Your task to perform on an android device: open app "PlayWell" Image 0: 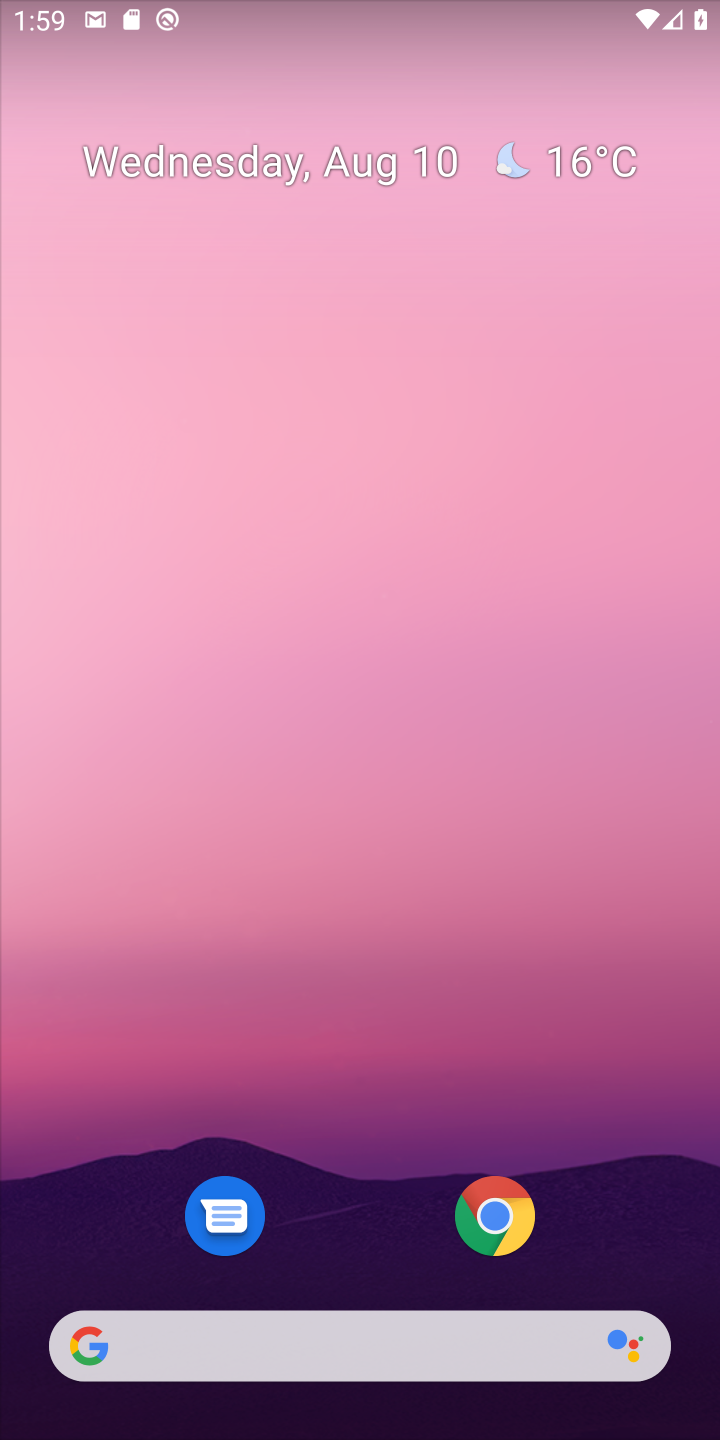
Step 0: drag from (353, 1320) to (302, 190)
Your task to perform on an android device: open app "PlayWell" Image 1: 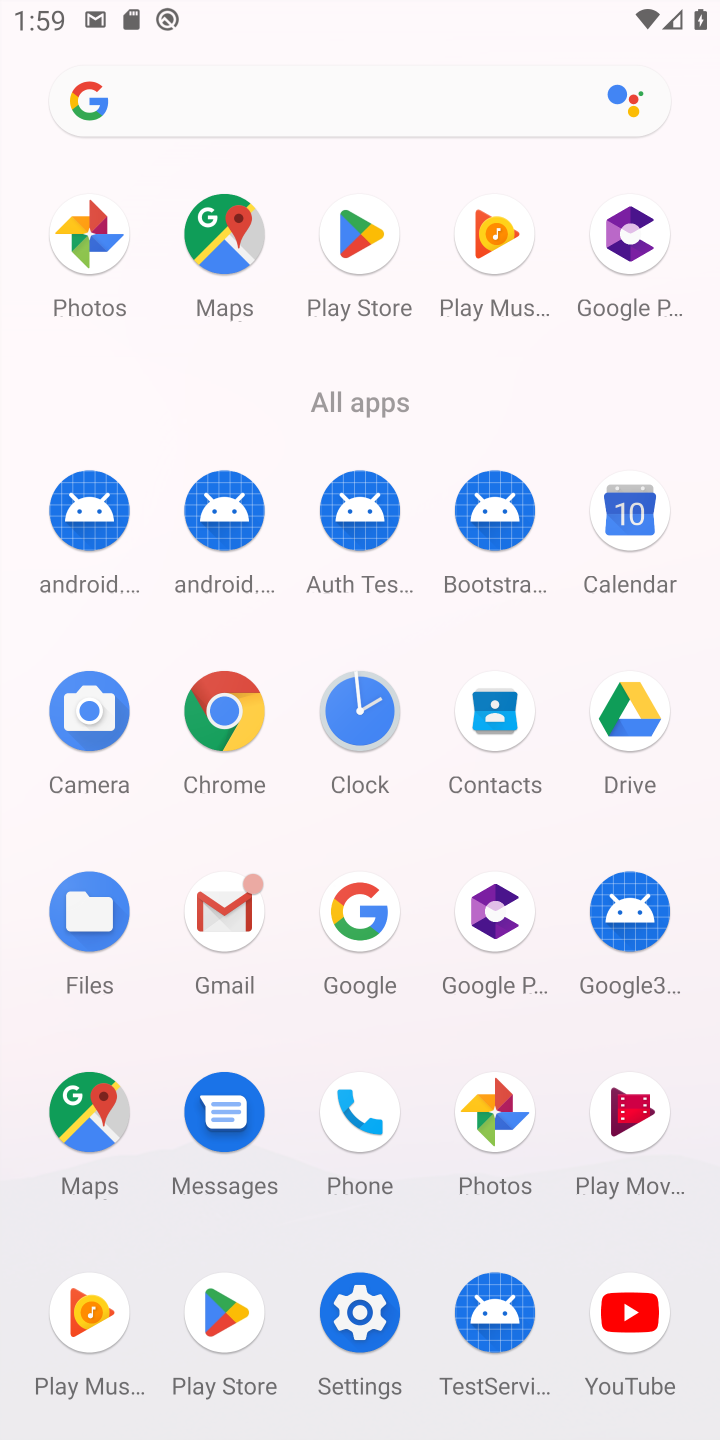
Step 1: click (364, 234)
Your task to perform on an android device: open app "PlayWell" Image 2: 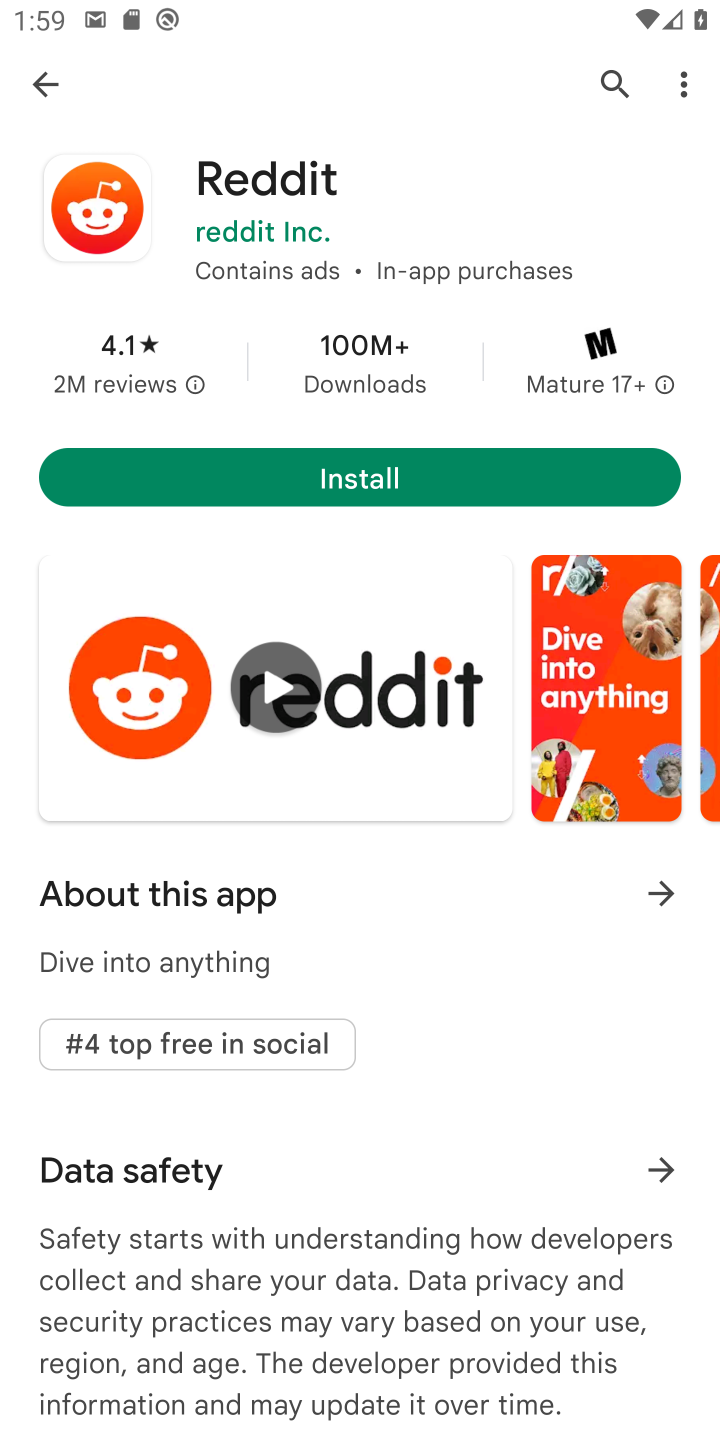
Step 2: click (120, 89)
Your task to perform on an android device: open app "PlayWell" Image 3: 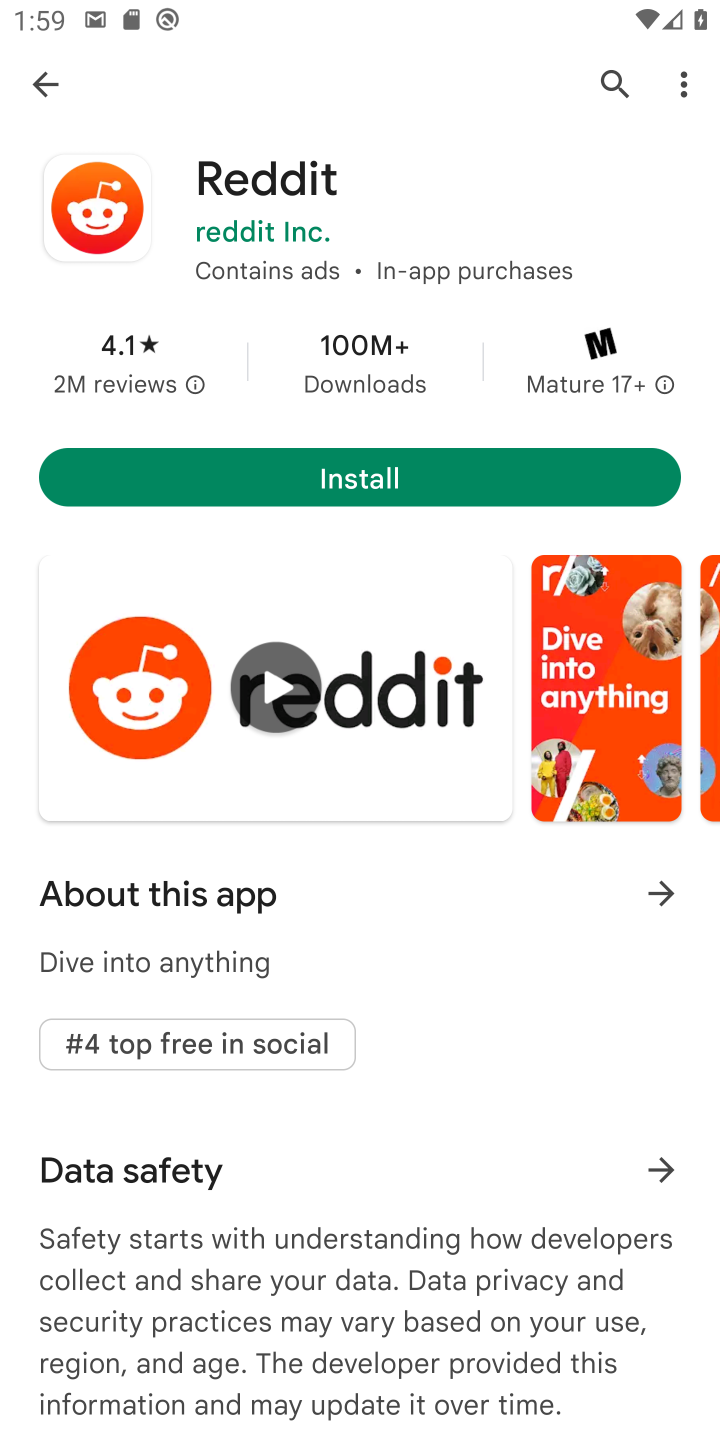
Step 3: click (48, 56)
Your task to perform on an android device: open app "PlayWell" Image 4: 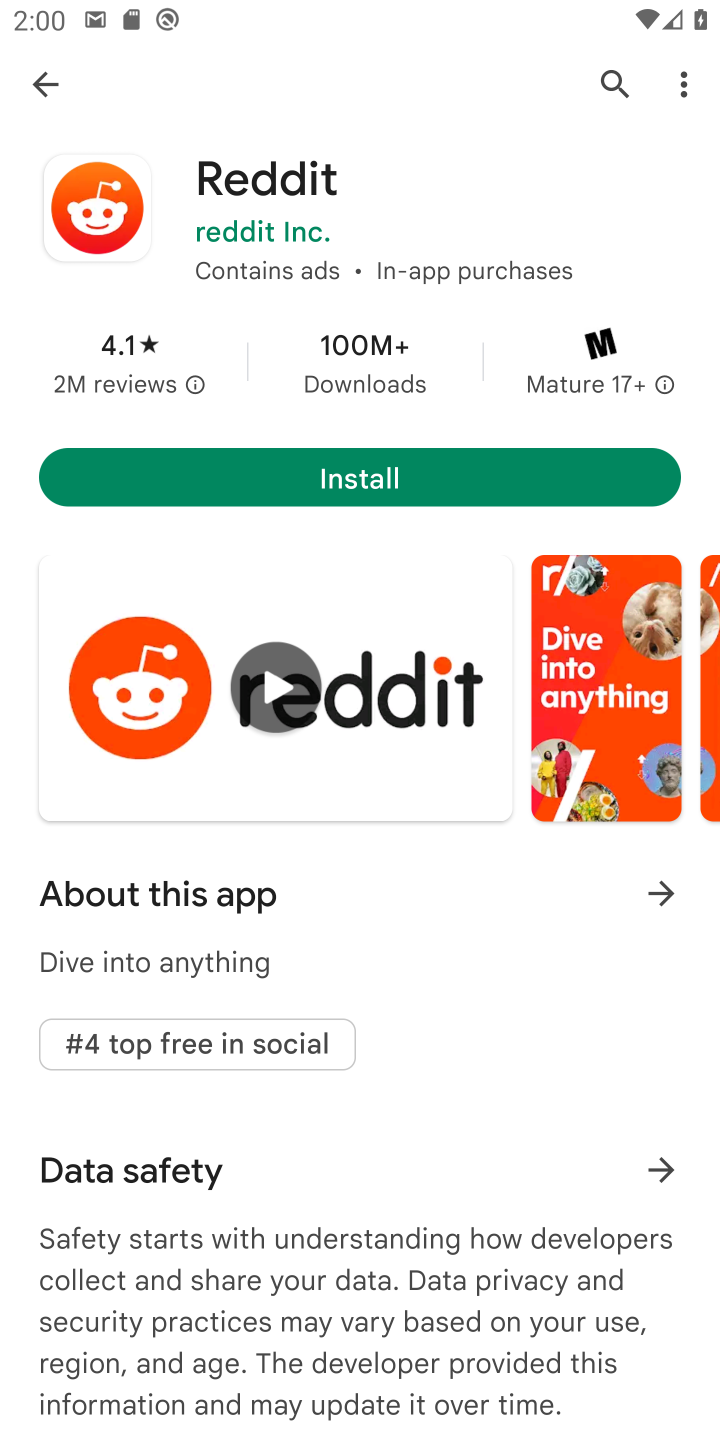
Step 4: click (56, 100)
Your task to perform on an android device: open app "PlayWell" Image 5: 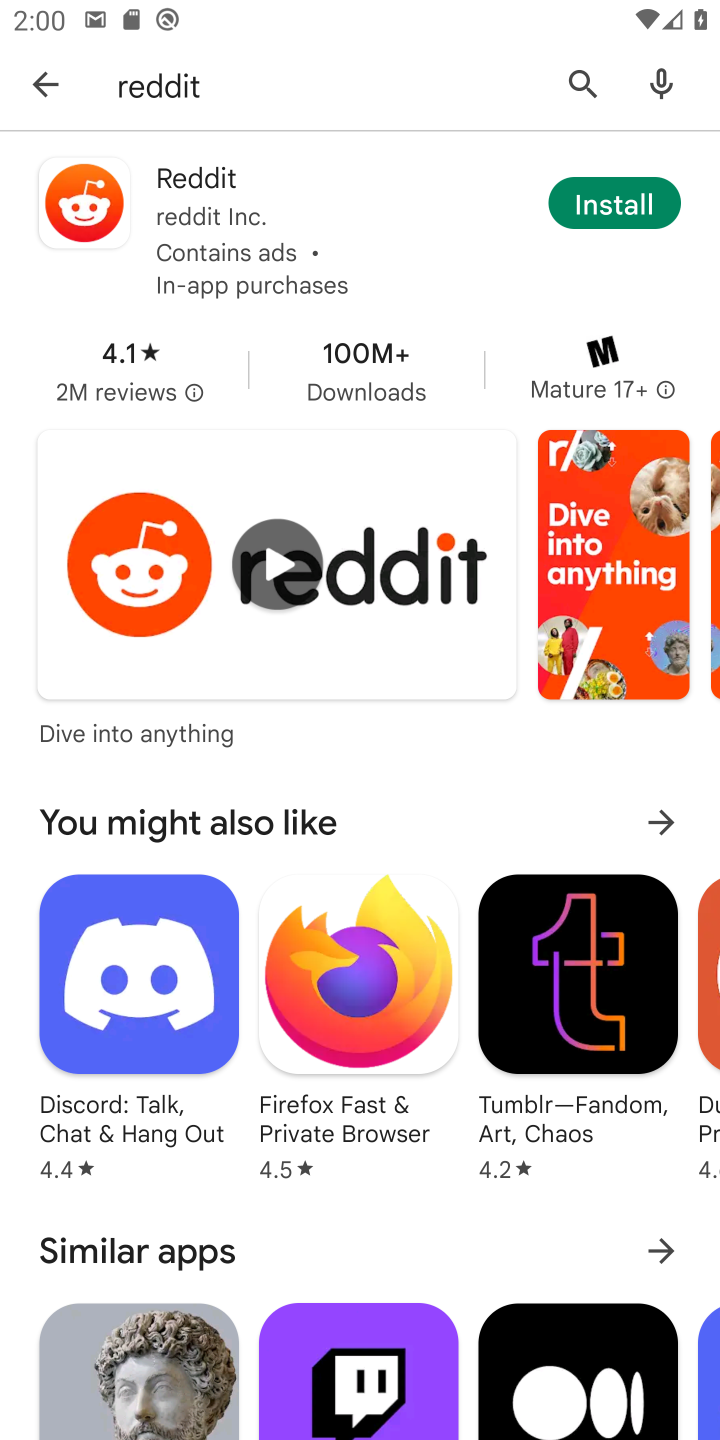
Step 5: click (32, 83)
Your task to perform on an android device: open app "PlayWell" Image 6: 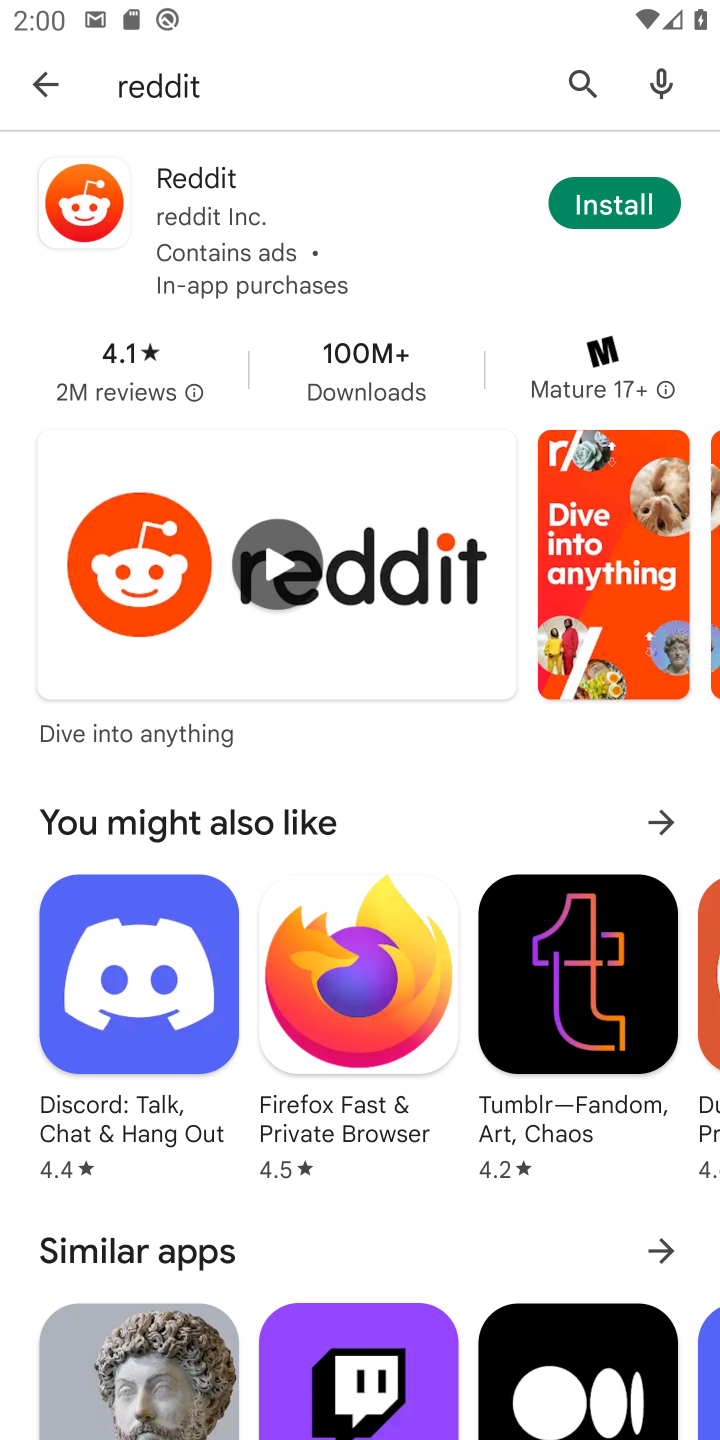
Step 6: click (564, 69)
Your task to perform on an android device: open app "PlayWell" Image 7: 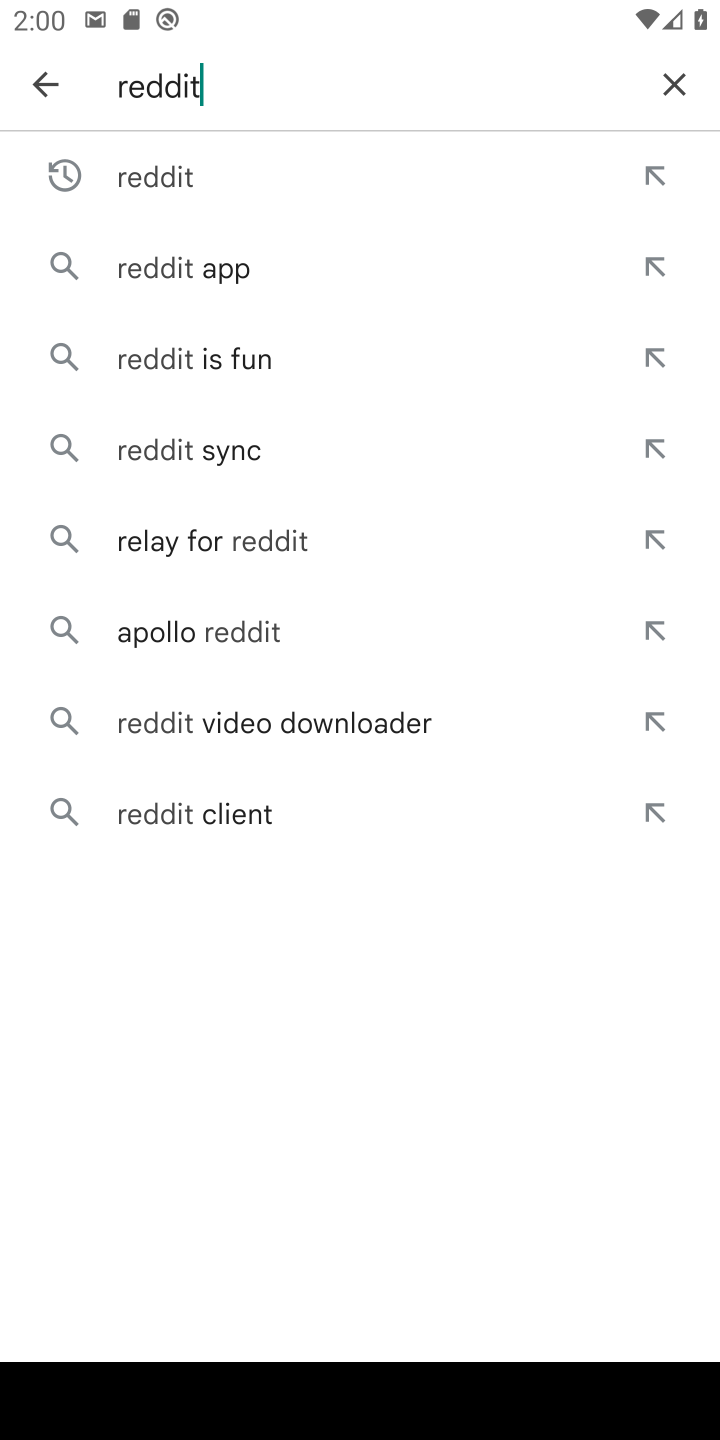
Step 7: click (662, 77)
Your task to perform on an android device: open app "PlayWell" Image 8: 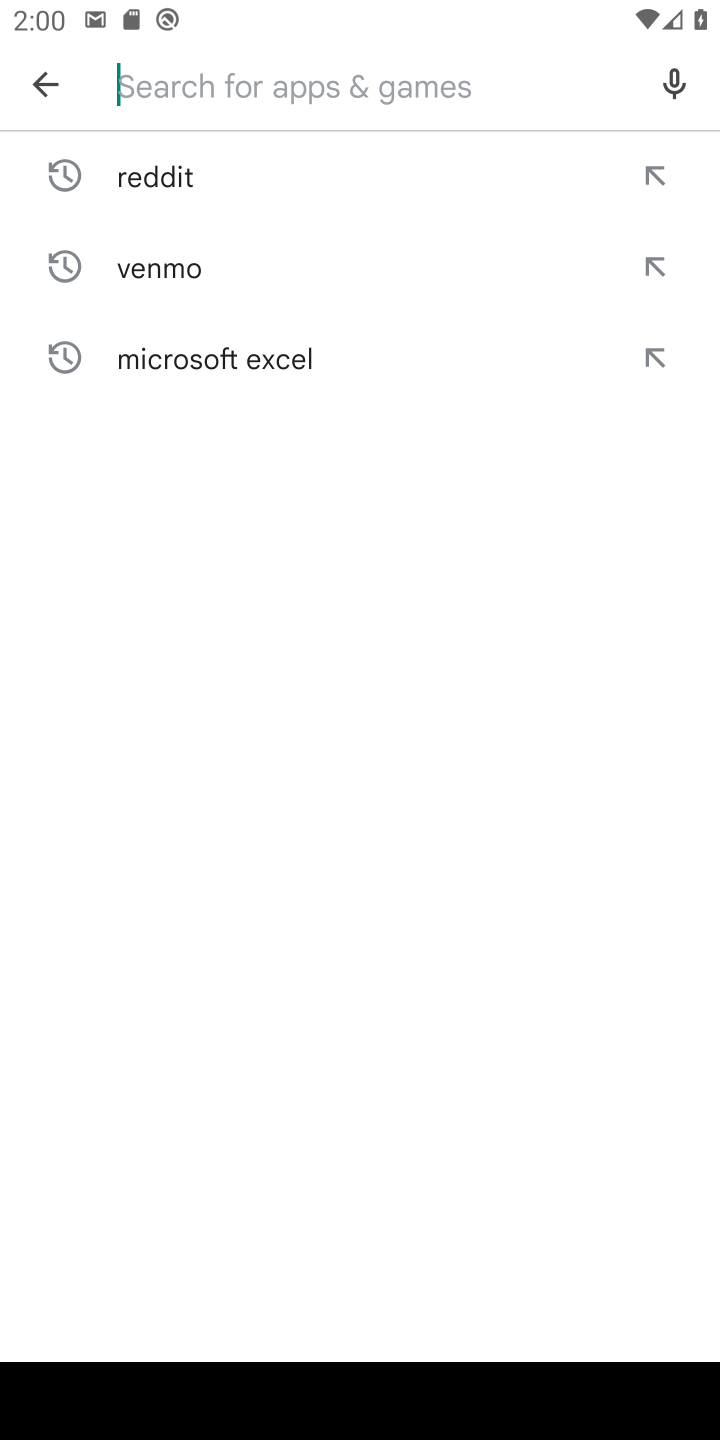
Step 8: type "PlayWell"
Your task to perform on an android device: open app "PlayWell" Image 9: 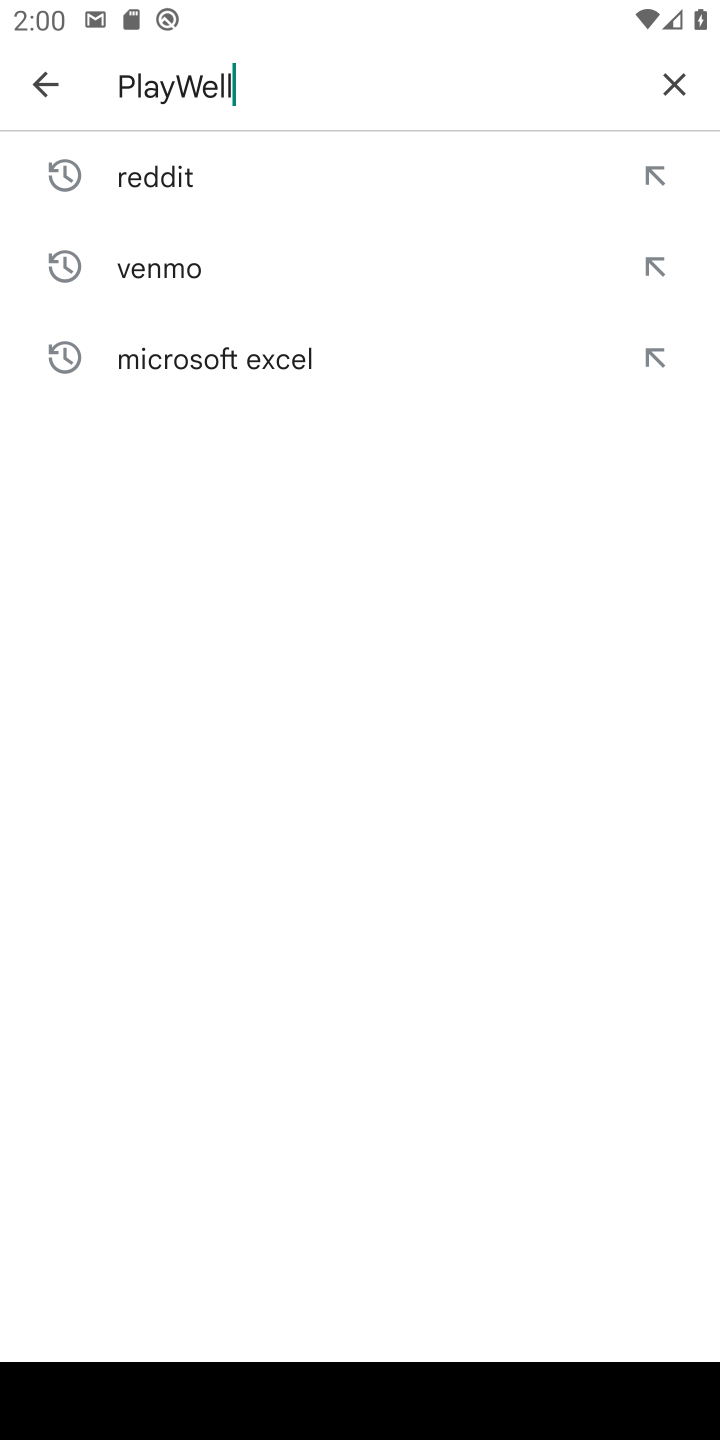
Step 9: type ""
Your task to perform on an android device: open app "PlayWell" Image 10: 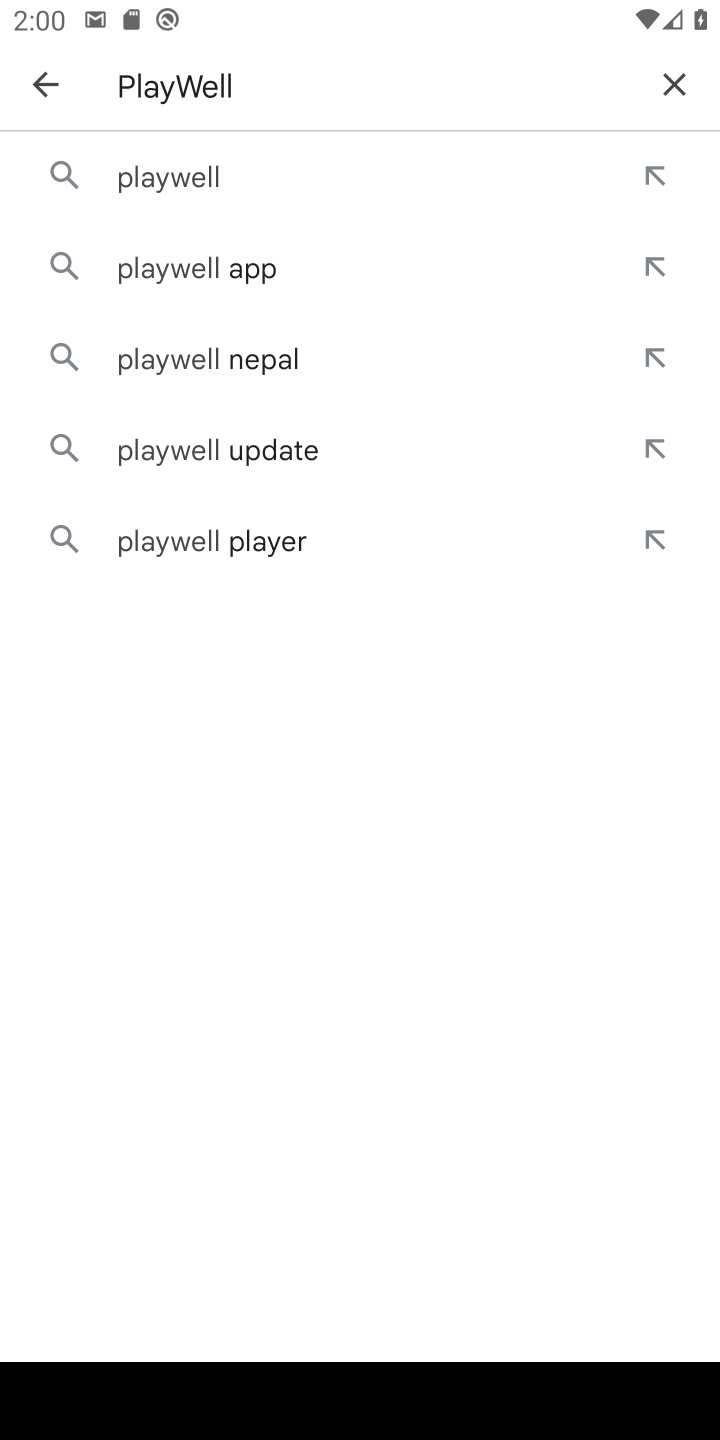
Step 10: click (134, 168)
Your task to perform on an android device: open app "PlayWell" Image 11: 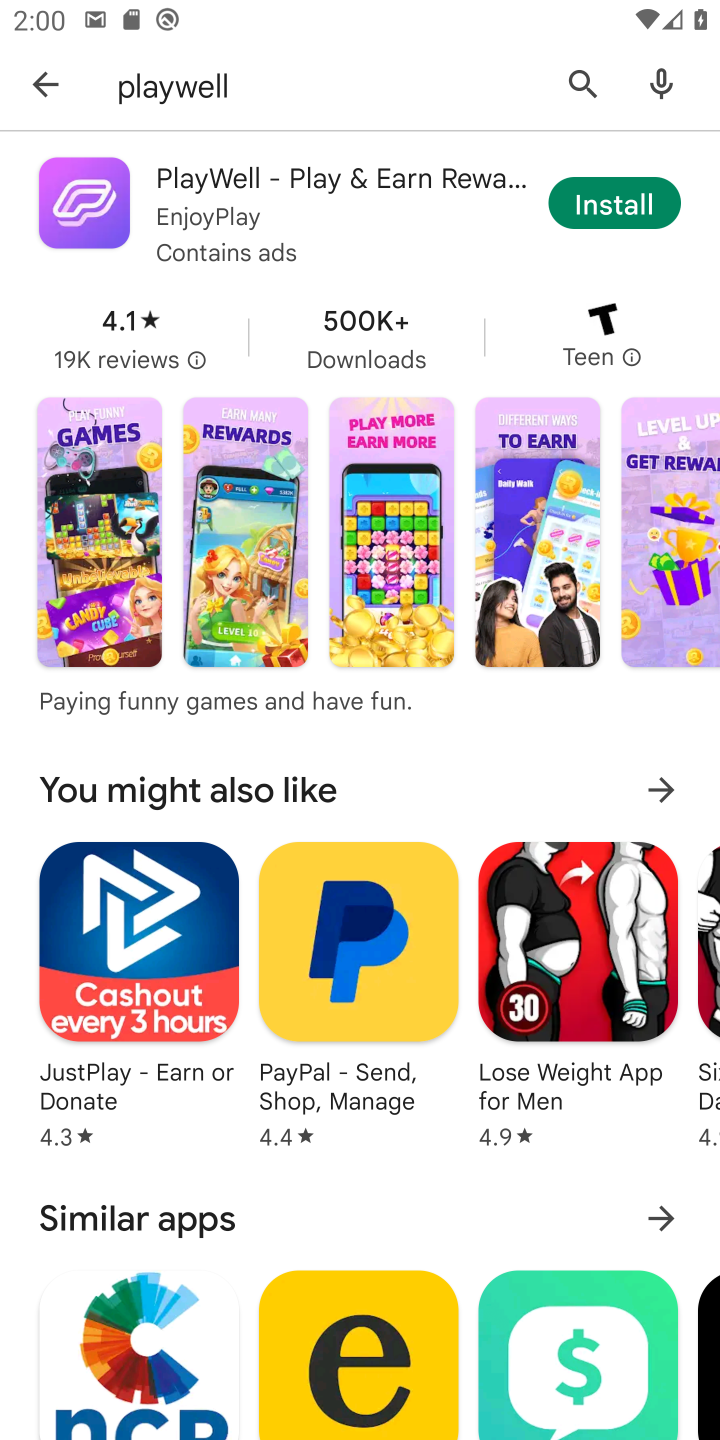
Step 11: task complete